Your task to perform on an android device: empty trash in google photos Image 0: 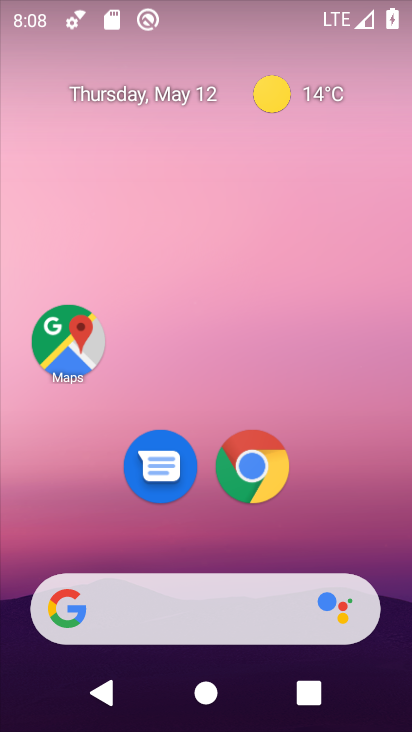
Step 0: drag from (212, 544) to (234, 95)
Your task to perform on an android device: empty trash in google photos Image 1: 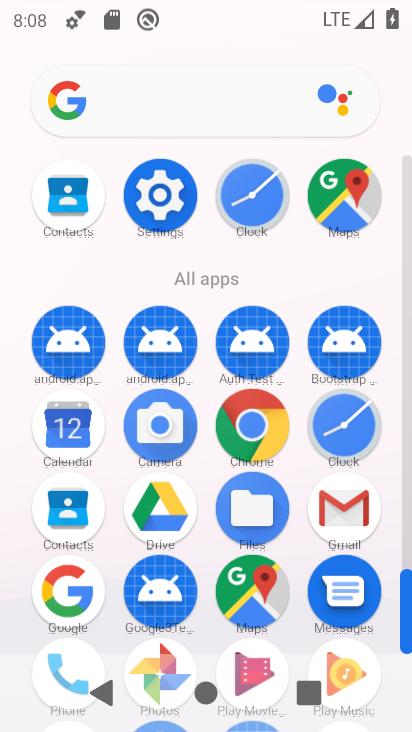
Step 1: drag from (200, 546) to (208, 125)
Your task to perform on an android device: empty trash in google photos Image 2: 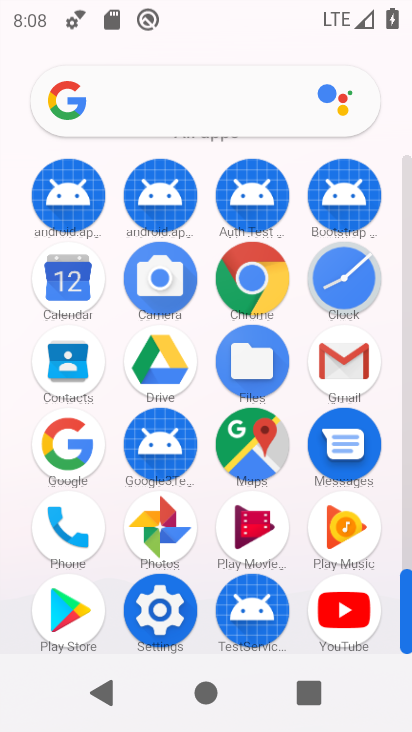
Step 2: click (164, 511)
Your task to perform on an android device: empty trash in google photos Image 3: 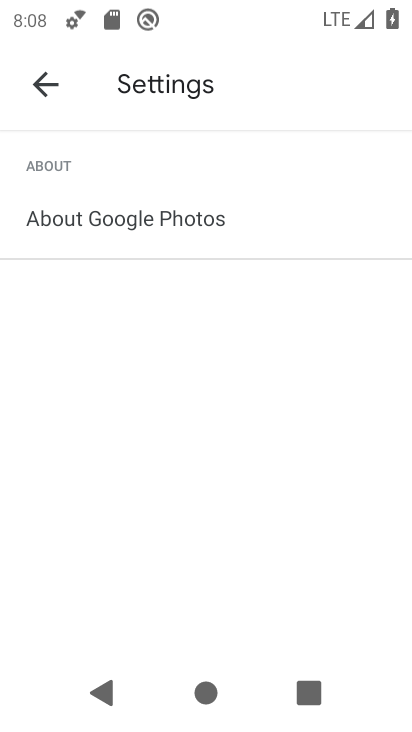
Step 3: click (53, 80)
Your task to perform on an android device: empty trash in google photos Image 4: 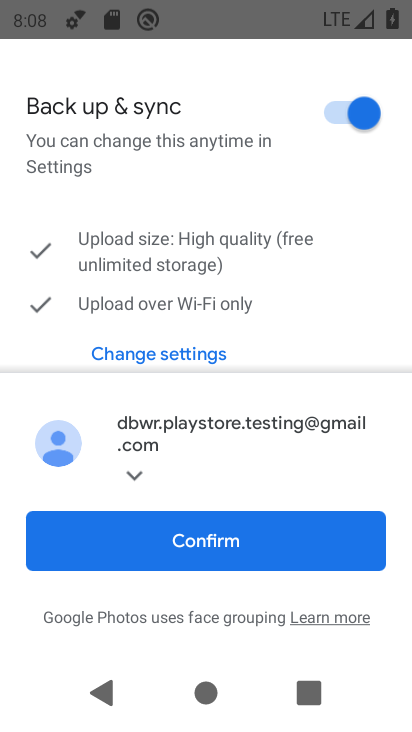
Step 4: click (219, 547)
Your task to perform on an android device: empty trash in google photos Image 5: 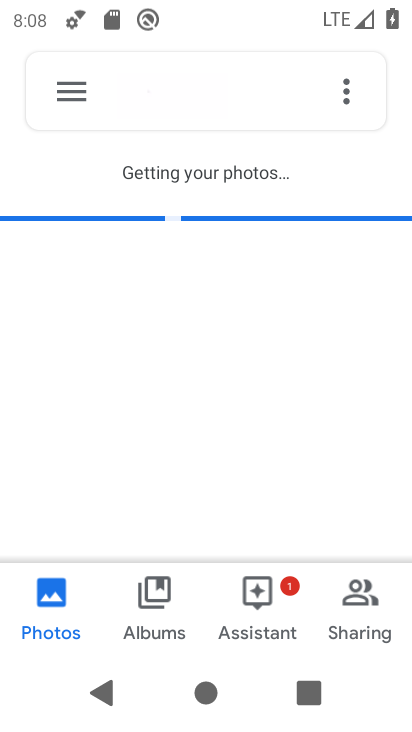
Step 5: click (71, 90)
Your task to perform on an android device: empty trash in google photos Image 6: 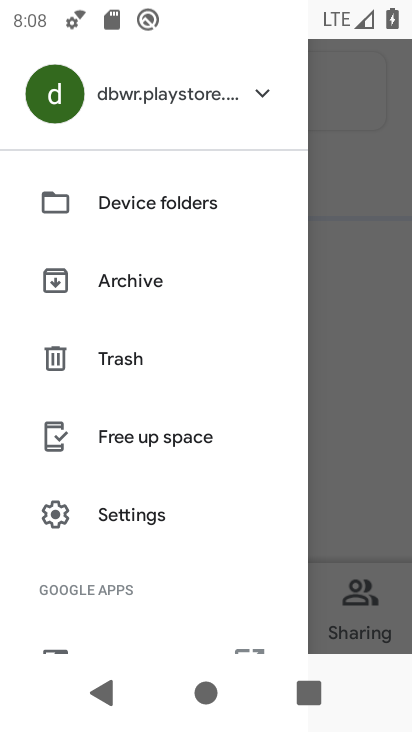
Step 6: click (136, 356)
Your task to perform on an android device: empty trash in google photos Image 7: 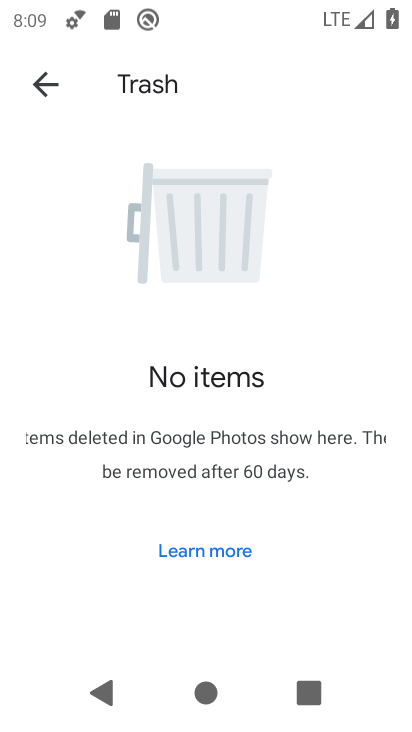
Step 7: task complete